Your task to perform on an android device: Open Yahoo.com Image 0: 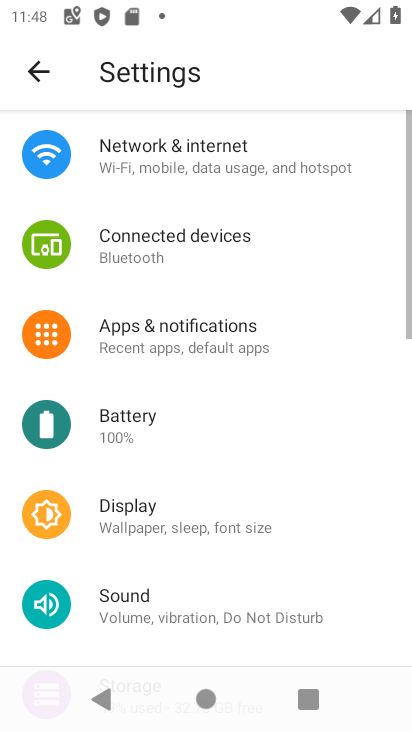
Step 0: press home button
Your task to perform on an android device: Open Yahoo.com Image 1: 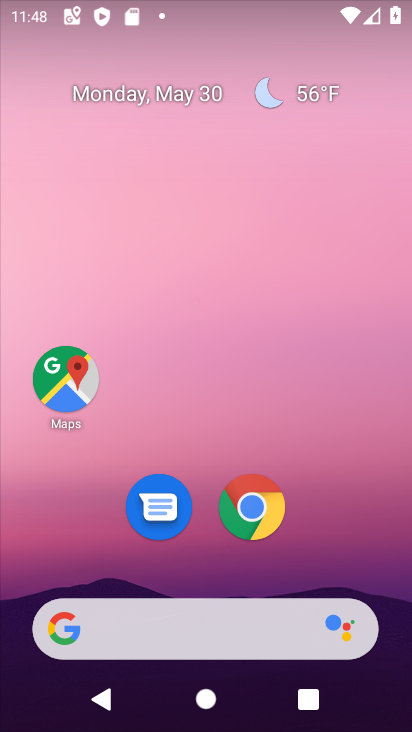
Step 1: click (214, 634)
Your task to perform on an android device: Open Yahoo.com Image 2: 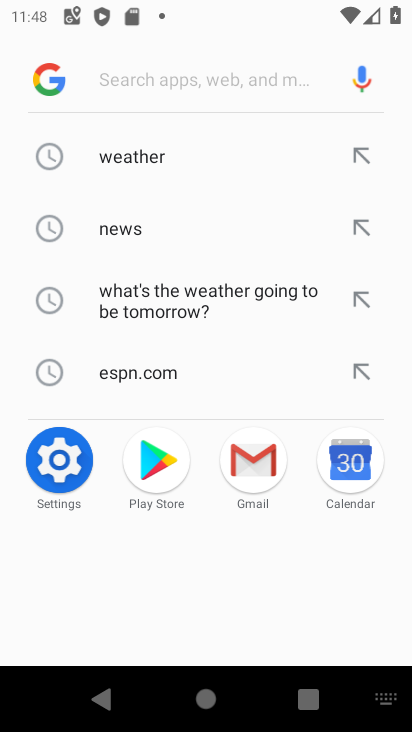
Step 2: type "Yahoo.com"
Your task to perform on an android device: Open Yahoo.com Image 3: 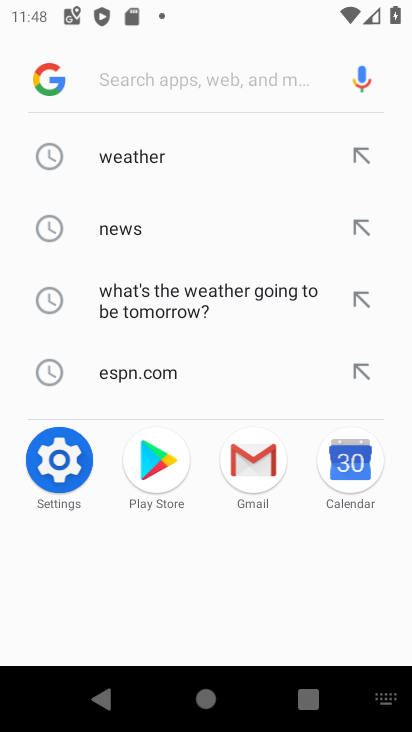
Step 3: click (200, 85)
Your task to perform on an android device: Open Yahoo.com Image 4: 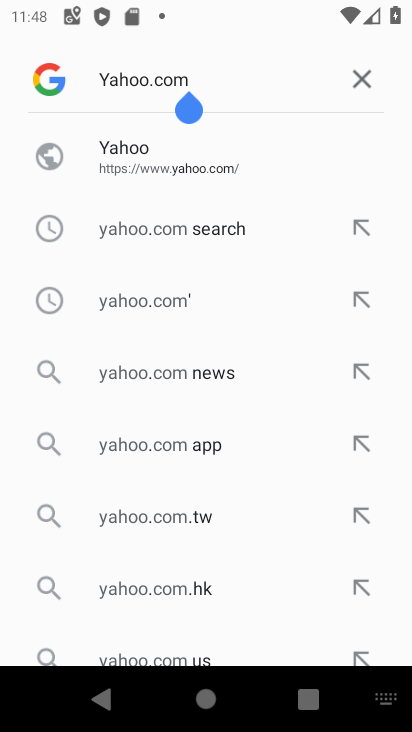
Step 4: click (102, 138)
Your task to perform on an android device: Open Yahoo.com Image 5: 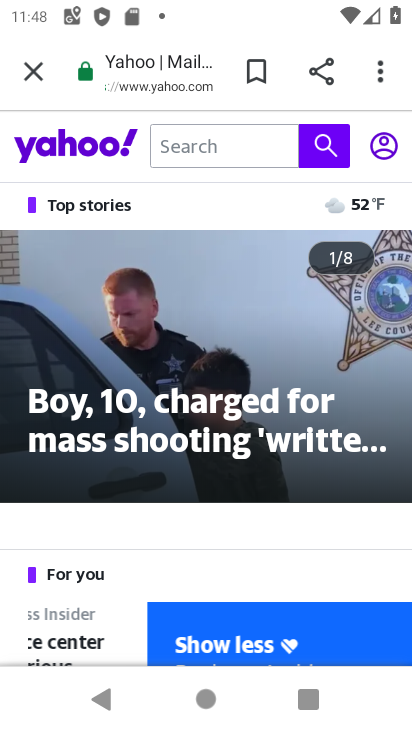
Step 5: task complete